Your task to perform on an android device: move an email to a new category in the gmail app Image 0: 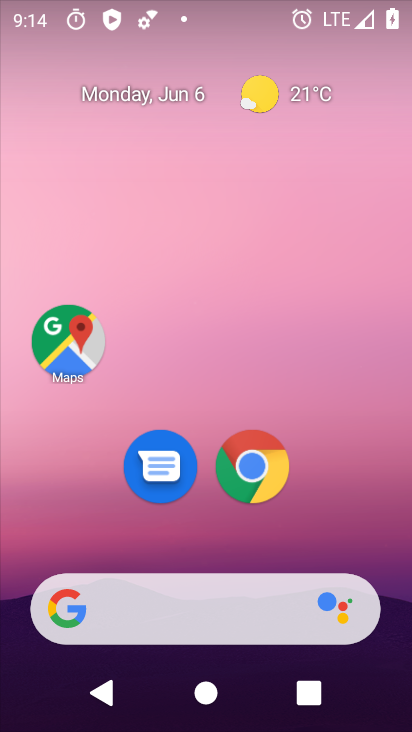
Step 0: drag from (207, 555) to (243, 53)
Your task to perform on an android device: move an email to a new category in the gmail app Image 1: 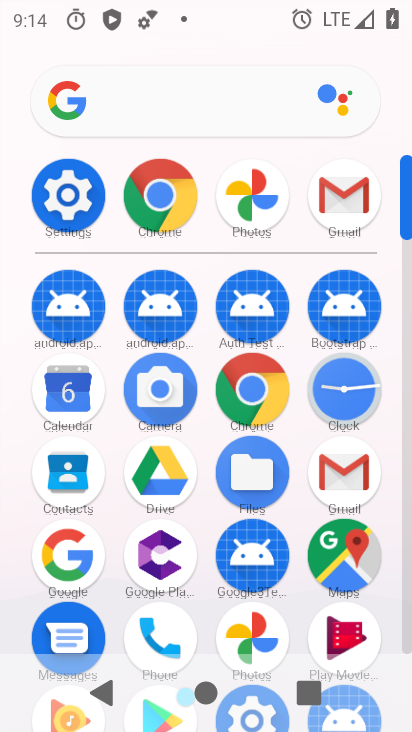
Step 1: click (345, 475)
Your task to perform on an android device: move an email to a new category in the gmail app Image 2: 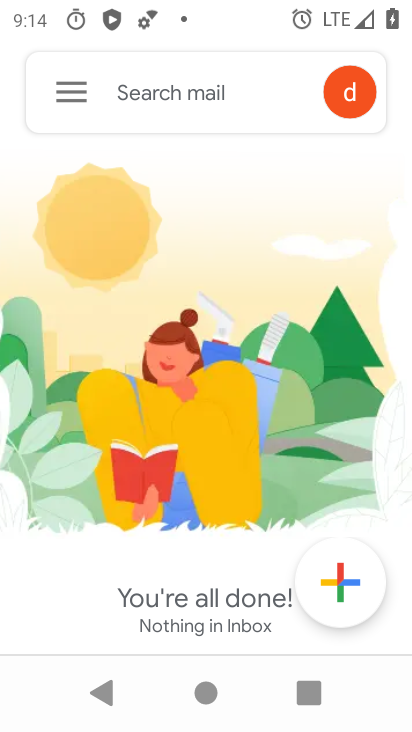
Step 2: click (74, 88)
Your task to perform on an android device: move an email to a new category in the gmail app Image 3: 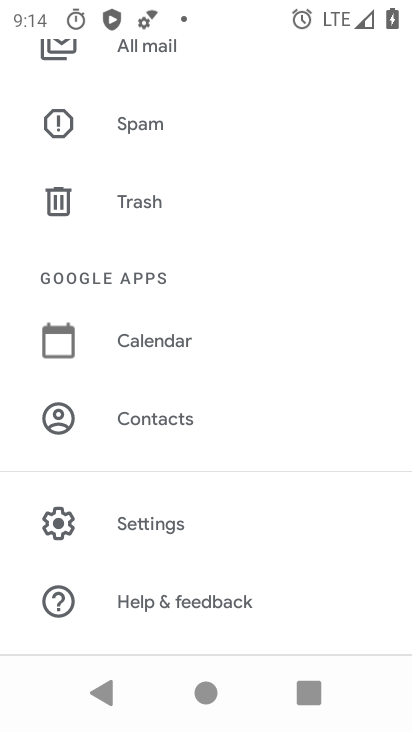
Step 3: drag from (206, 504) to (261, 145)
Your task to perform on an android device: move an email to a new category in the gmail app Image 4: 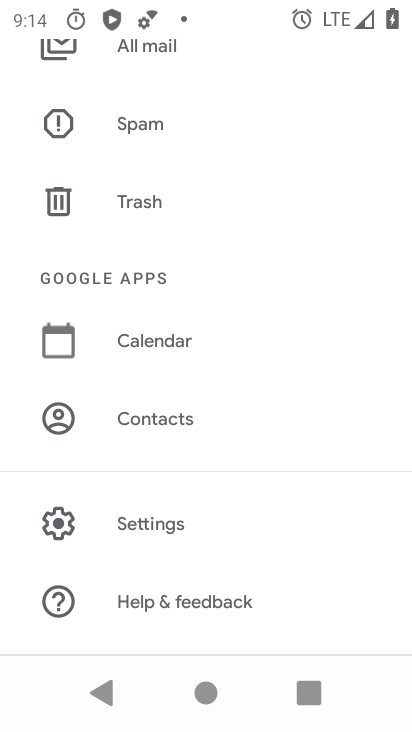
Step 4: drag from (197, 234) to (350, 270)
Your task to perform on an android device: move an email to a new category in the gmail app Image 5: 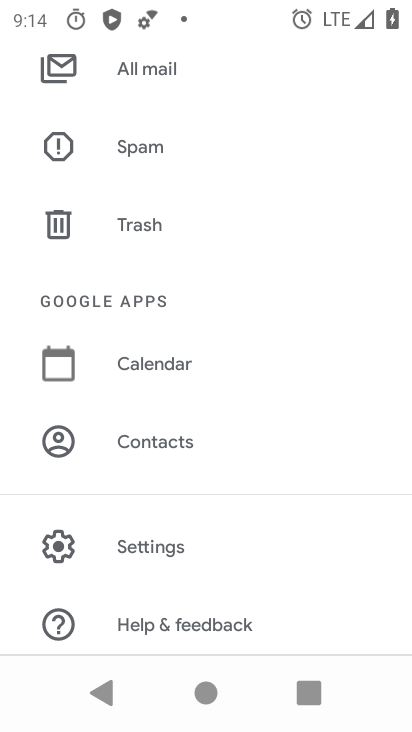
Step 5: drag from (188, 176) to (268, 640)
Your task to perform on an android device: move an email to a new category in the gmail app Image 6: 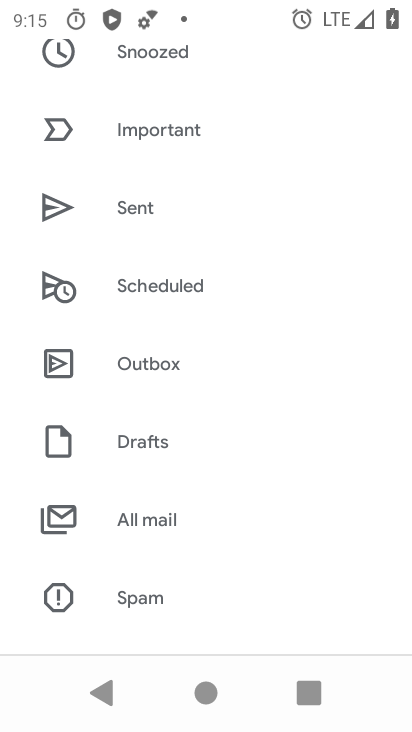
Step 6: drag from (216, 202) to (129, 731)
Your task to perform on an android device: move an email to a new category in the gmail app Image 7: 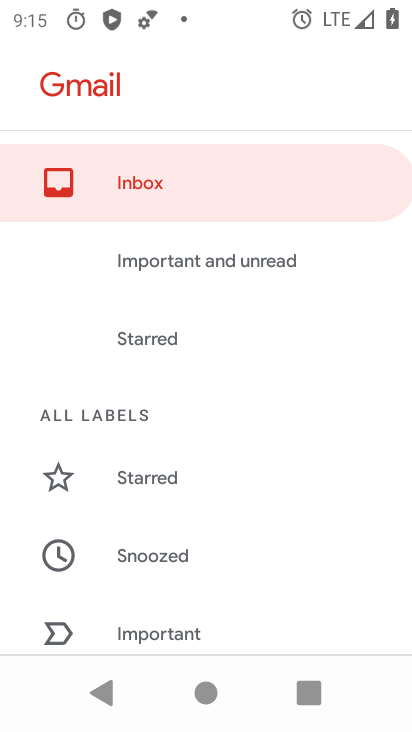
Step 7: drag from (192, 228) to (291, 668)
Your task to perform on an android device: move an email to a new category in the gmail app Image 8: 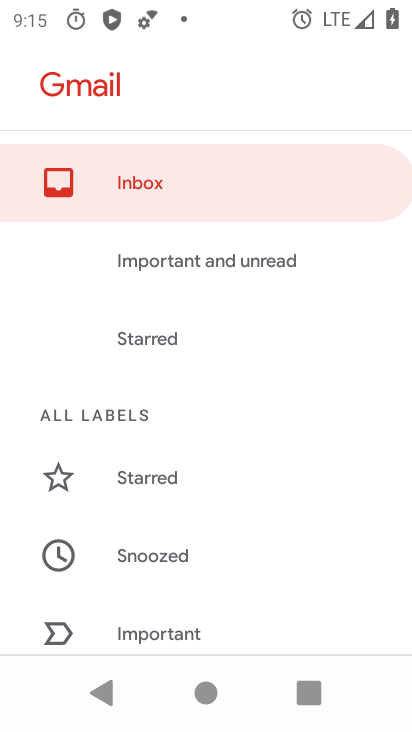
Step 8: drag from (214, 590) to (251, 7)
Your task to perform on an android device: move an email to a new category in the gmail app Image 9: 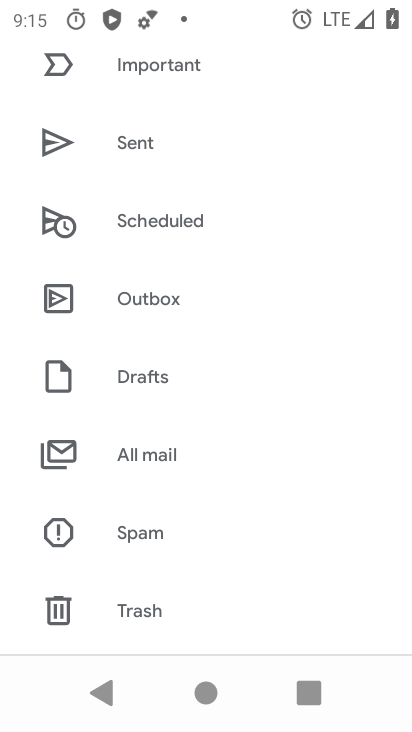
Step 9: drag from (207, 587) to (264, 138)
Your task to perform on an android device: move an email to a new category in the gmail app Image 10: 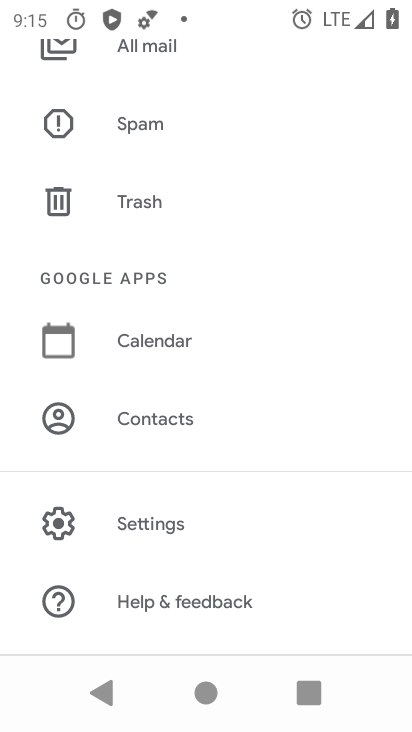
Step 10: drag from (237, 139) to (249, 386)
Your task to perform on an android device: move an email to a new category in the gmail app Image 11: 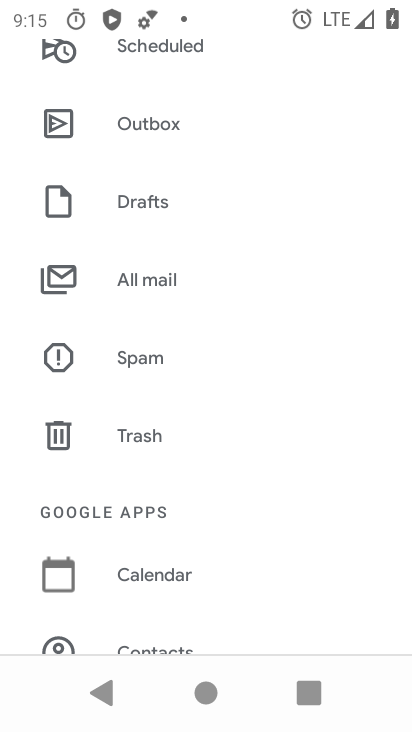
Step 11: click (232, 270)
Your task to perform on an android device: move an email to a new category in the gmail app Image 12: 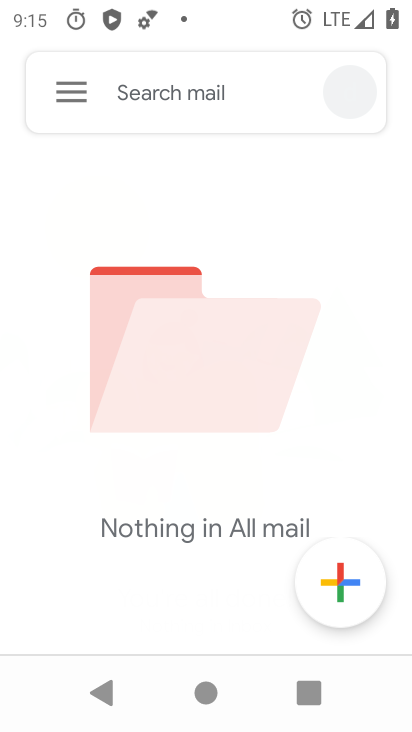
Step 12: task complete